Your task to perform on an android device: Go to Android settings Image 0: 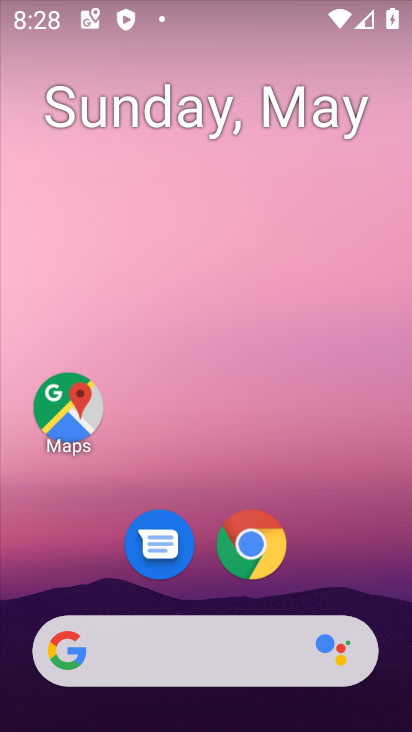
Step 0: drag from (339, 543) to (212, 92)
Your task to perform on an android device: Go to Android settings Image 1: 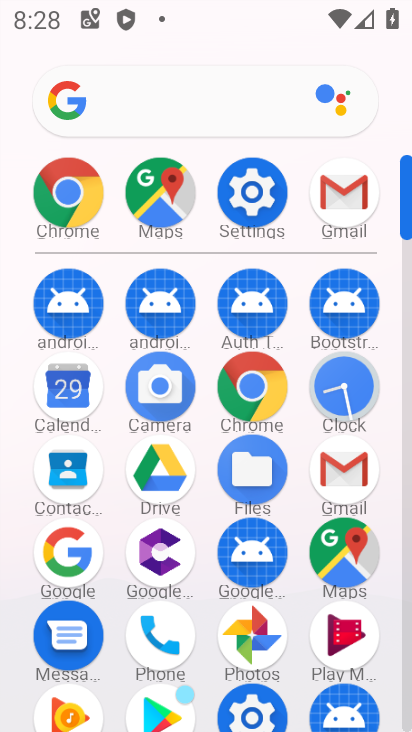
Step 1: drag from (3, 620) to (0, 225)
Your task to perform on an android device: Go to Android settings Image 2: 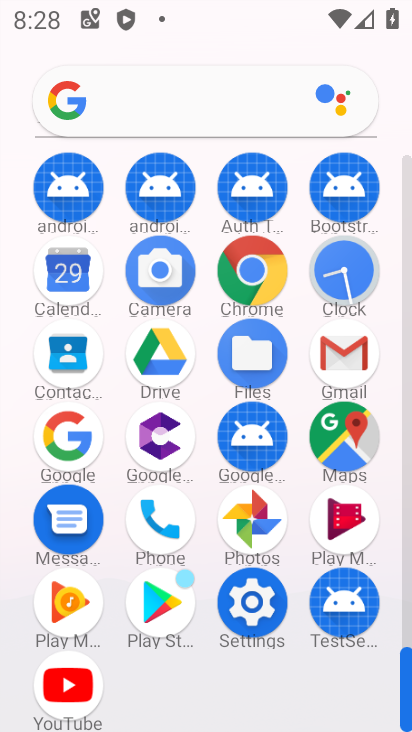
Step 2: click (252, 600)
Your task to perform on an android device: Go to Android settings Image 3: 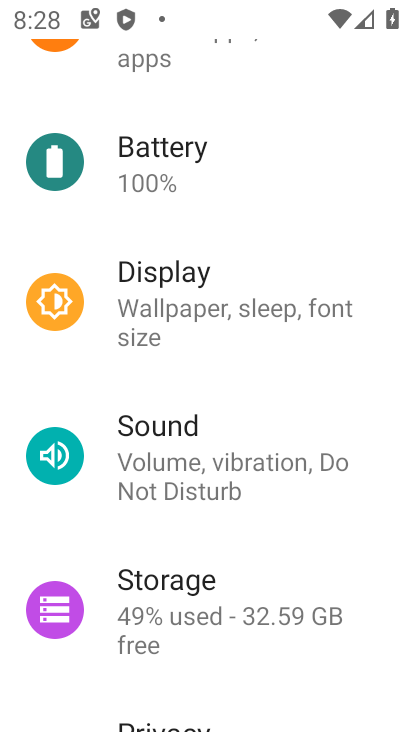
Step 3: task complete